Your task to perform on an android device: check out phone information Image 0: 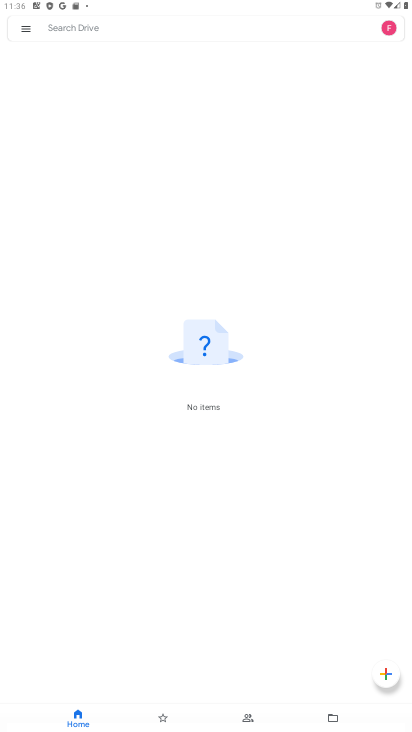
Step 0: press home button
Your task to perform on an android device: check out phone information Image 1: 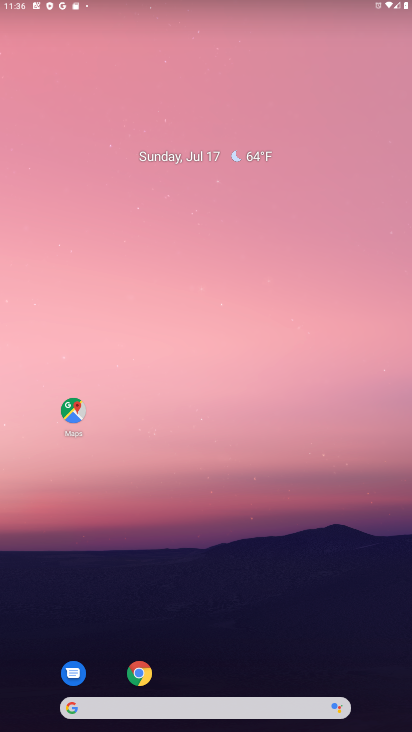
Step 1: drag from (284, 671) to (295, 107)
Your task to perform on an android device: check out phone information Image 2: 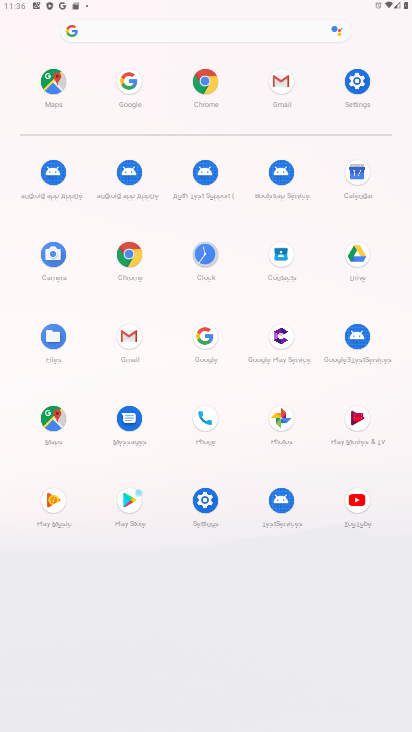
Step 2: click (356, 79)
Your task to perform on an android device: check out phone information Image 3: 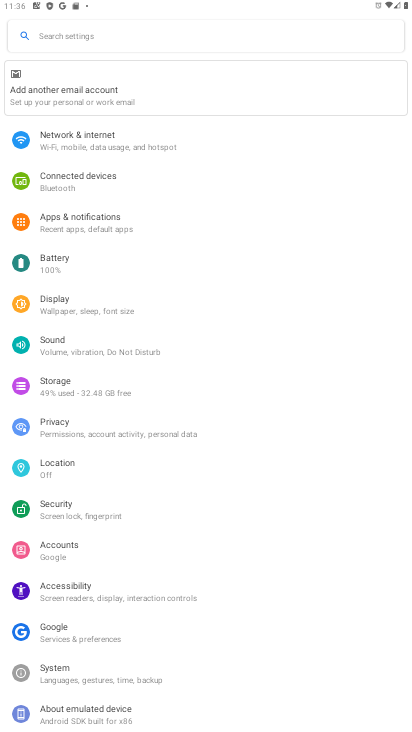
Step 3: click (97, 710)
Your task to perform on an android device: check out phone information Image 4: 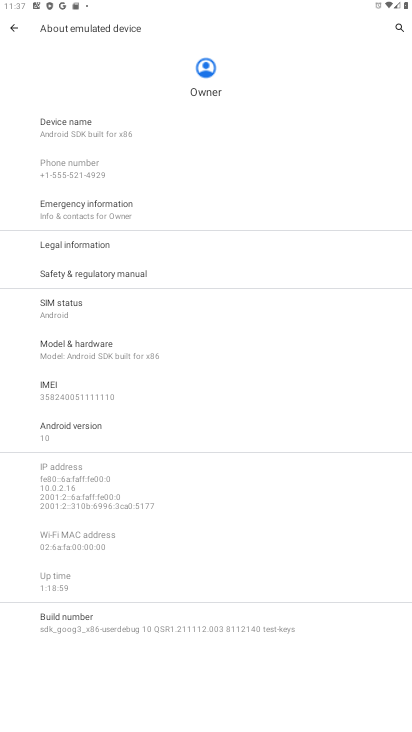
Step 4: task complete